Your task to perform on an android device: open a new tab in the chrome app Image 0: 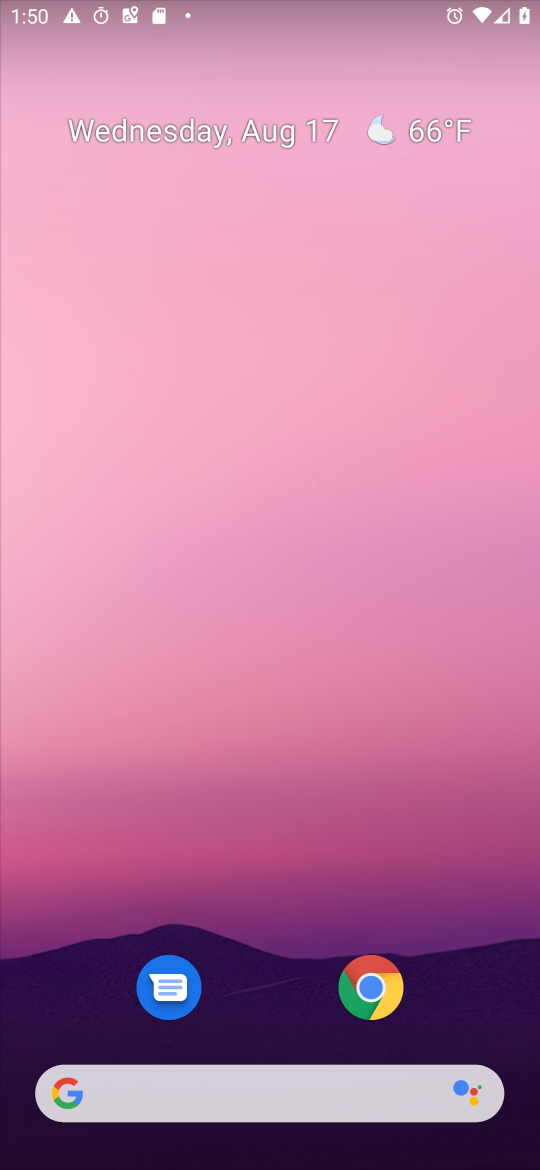
Step 0: click (348, 1006)
Your task to perform on an android device: open a new tab in the chrome app Image 1: 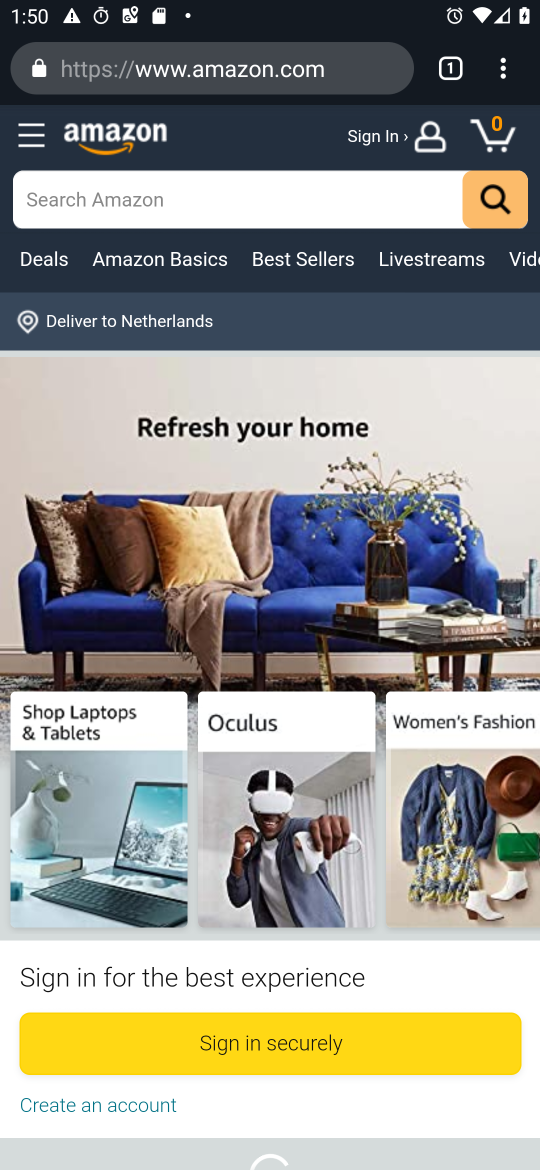
Step 1: click (508, 73)
Your task to perform on an android device: open a new tab in the chrome app Image 2: 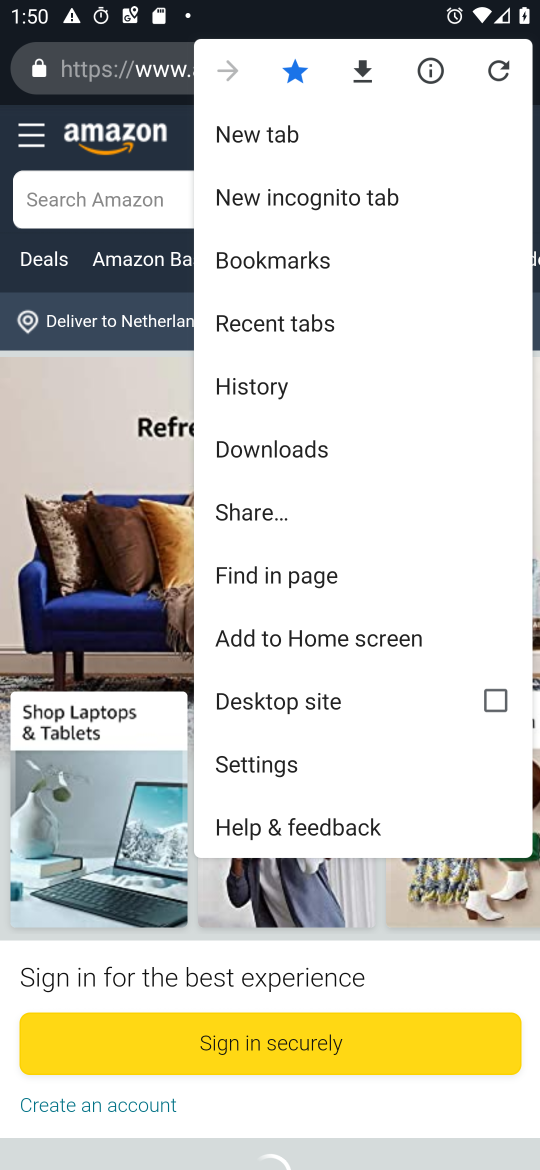
Step 2: click (283, 140)
Your task to perform on an android device: open a new tab in the chrome app Image 3: 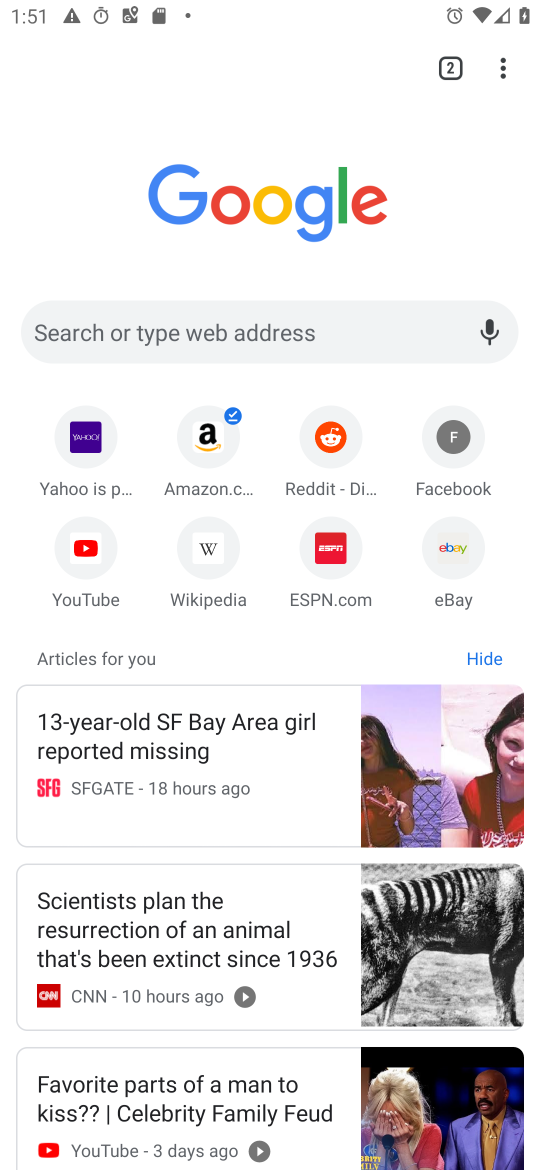
Step 3: click (521, 79)
Your task to perform on an android device: open a new tab in the chrome app Image 4: 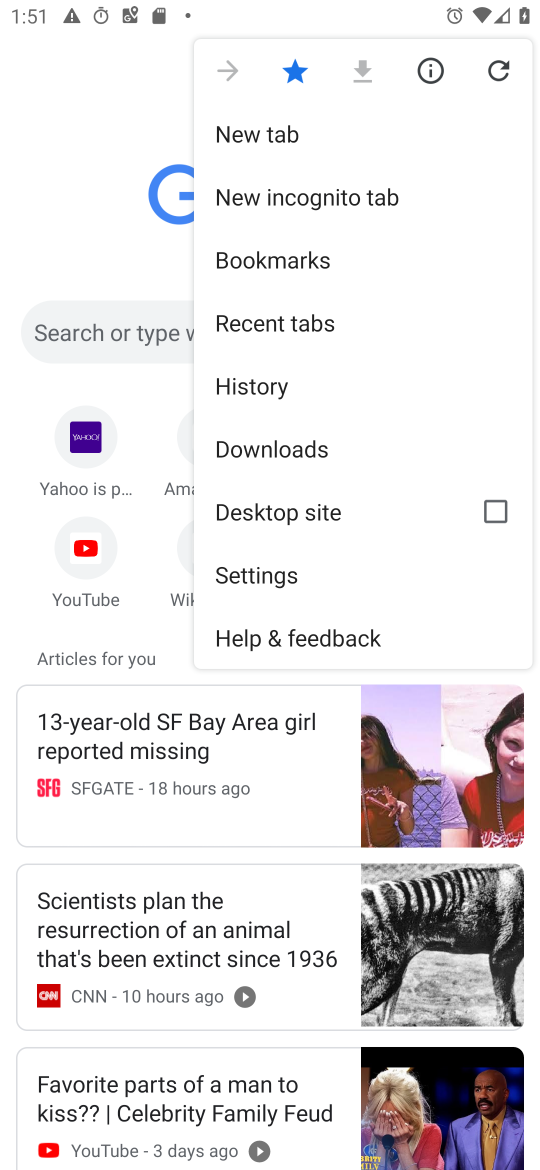
Step 4: click (494, 91)
Your task to perform on an android device: open a new tab in the chrome app Image 5: 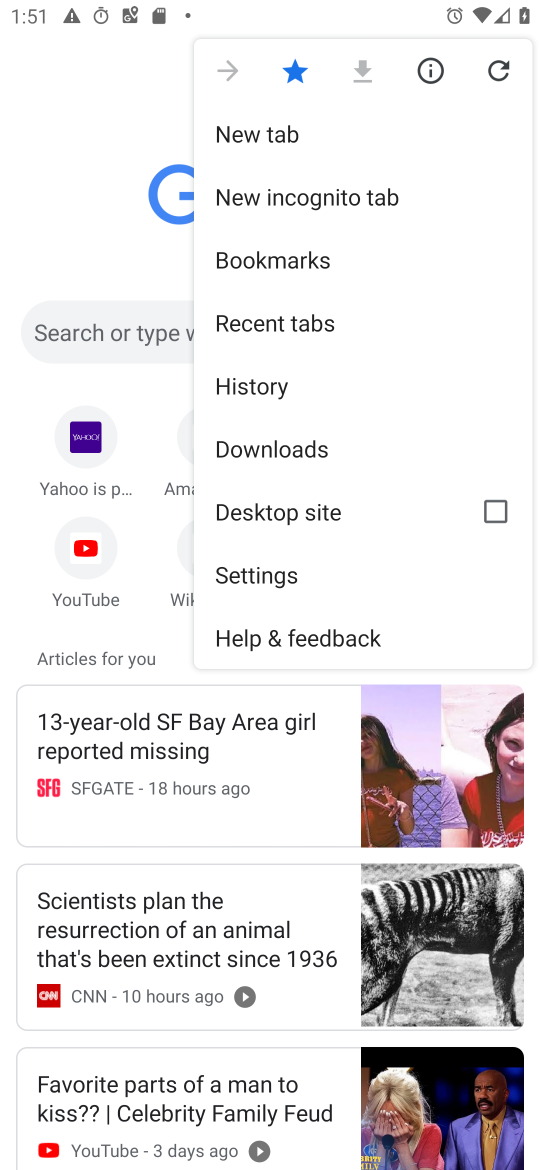
Step 5: click (499, 75)
Your task to perform on an android device: open a new tab in the chrome app Image 6: 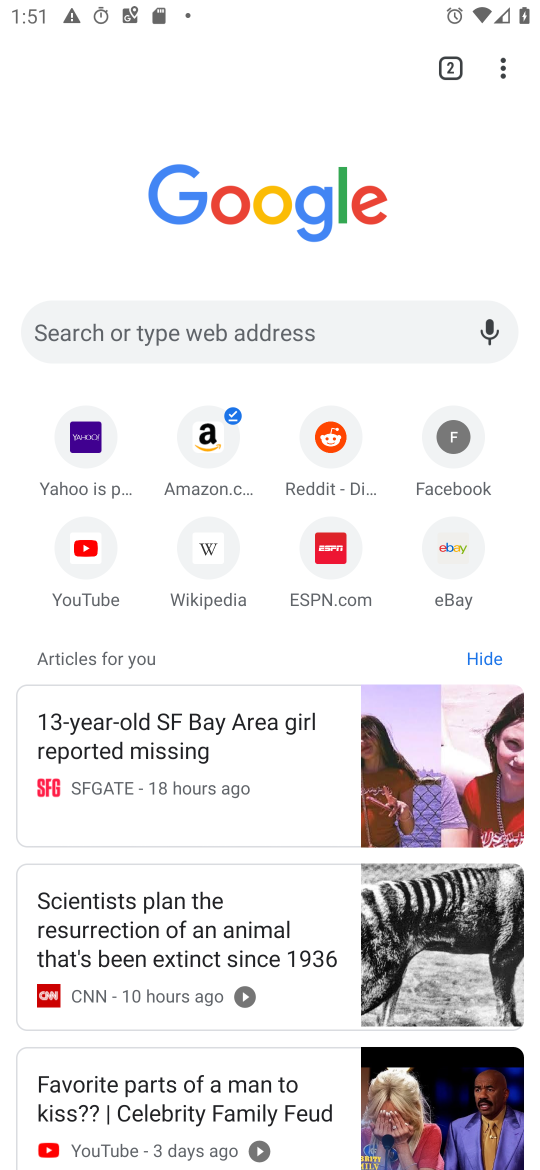
Step 6: click (504, 66)
Your task to perform on an android device: open a new tab in the chrome app Image 7: 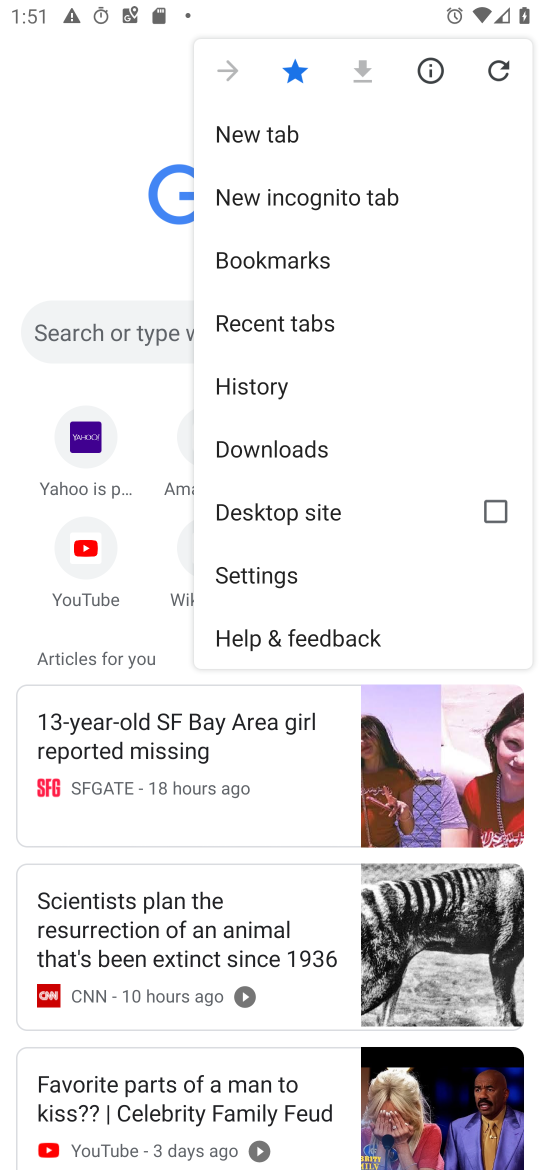
Step 7: click (267, 139)
Your task to perform on an android device: open a new tab in the chrome app Image 8: 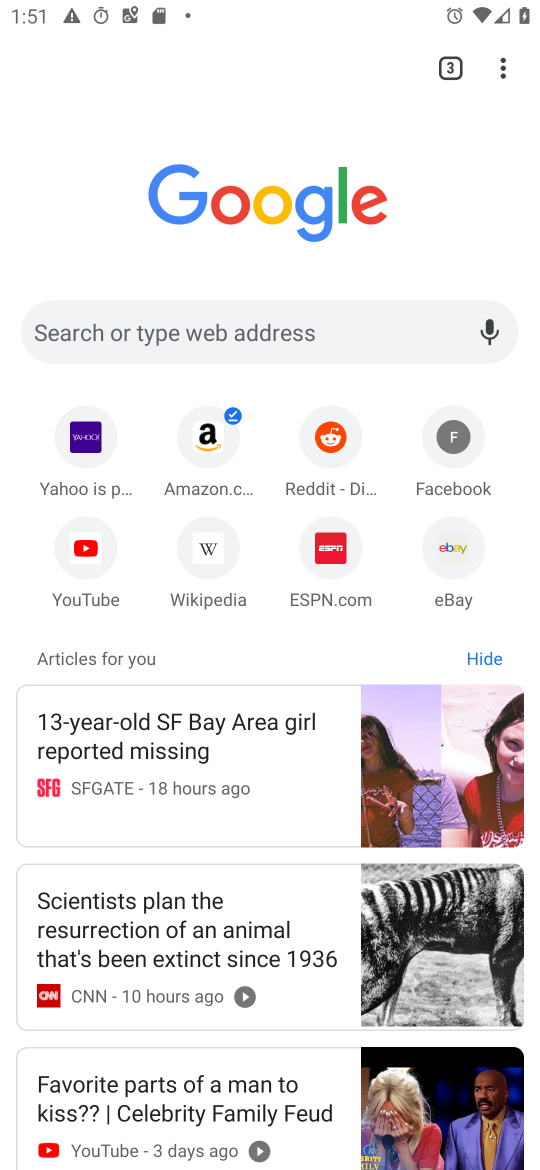
Step 8: task complete